Your task to perform on an android device: set default search engine in the chrome app Image 0: 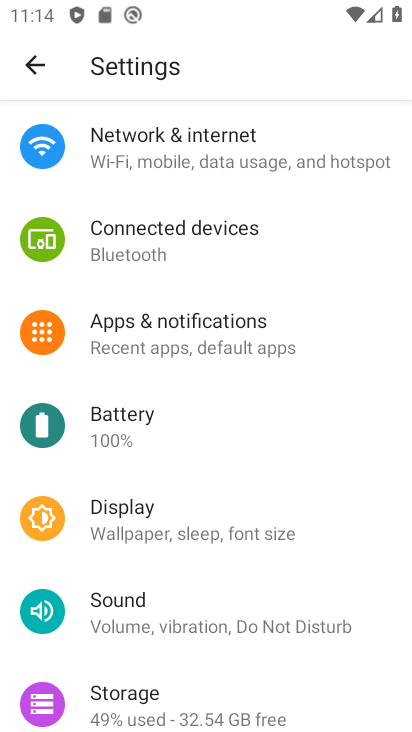
Step 0: press home button
Your task to perform on an android device: set default search engine in the chrome app Image 1: 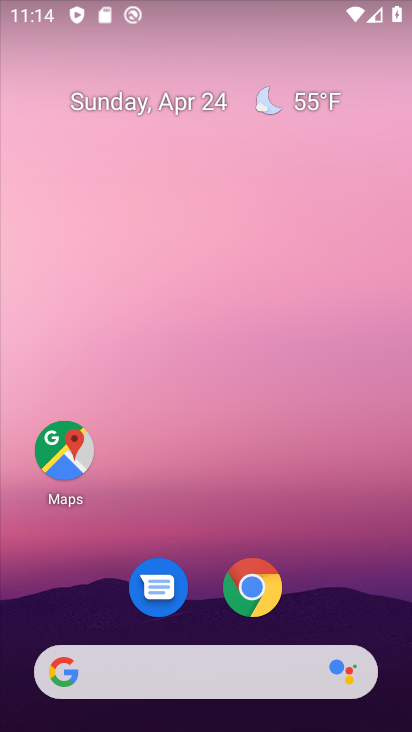
Step 1: drag from (340, 500) to (287, 5)
Your task to perform on an android device: set default search engine in the chrome app Image 2: 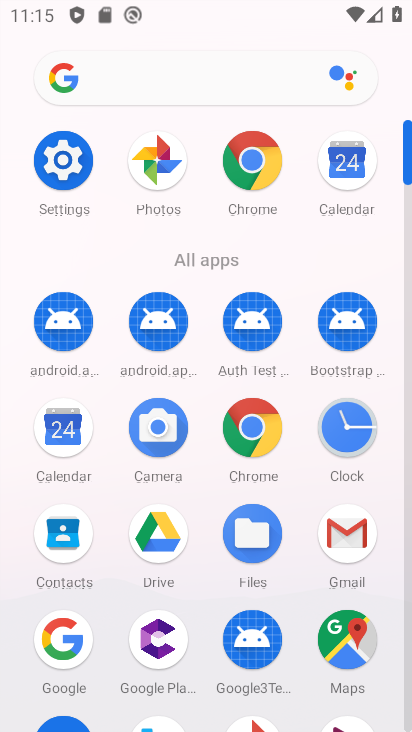
Step 2: click (259, 173)
Your task to perform on an android device: set default search engine in the chrome app Image 3: 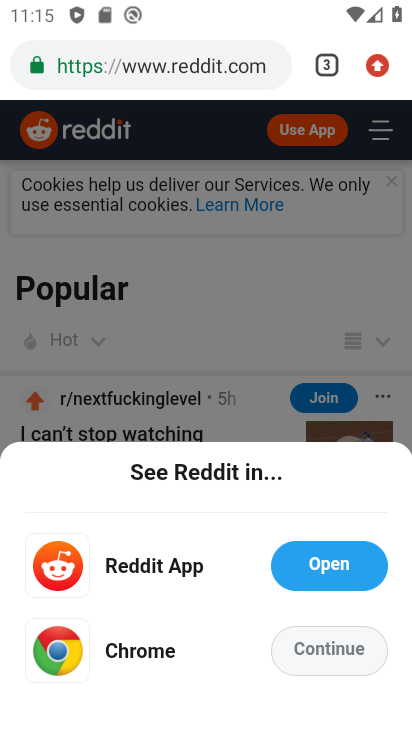
Step 3: click (378, 63)
Your task to perform on an android device: set default search engine in the chrome app Image 4: 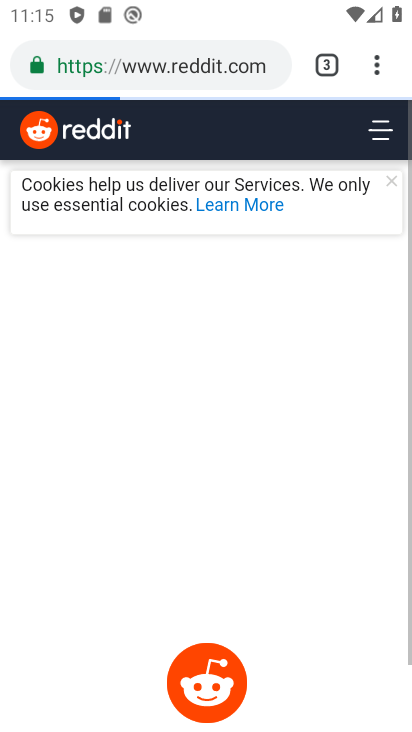
Step 4: drag from (378, 63) to (171, 626)
Your task to perform on an android device: set default search engine in the chrome app Image 5: 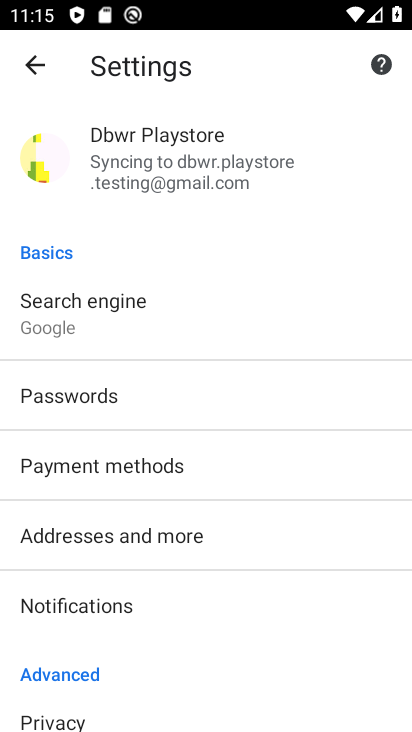
Step 5: click (46, 322)
Your task to perform on an android device: set default search engine in the chrome app Image 6: 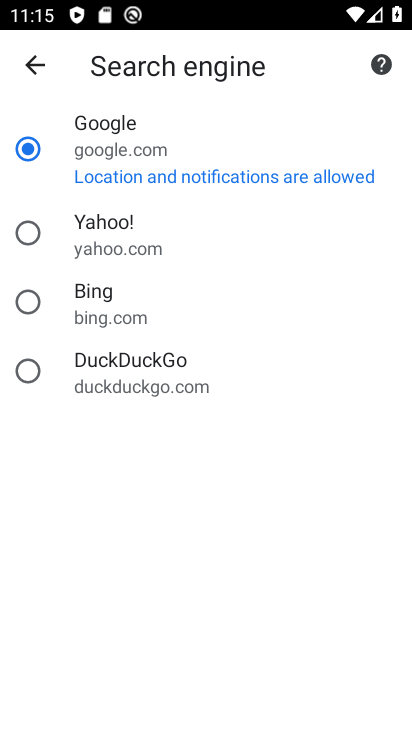
Step 6: task complete